Your task to perform on an android device: add a contact in the contacts app Image 0: 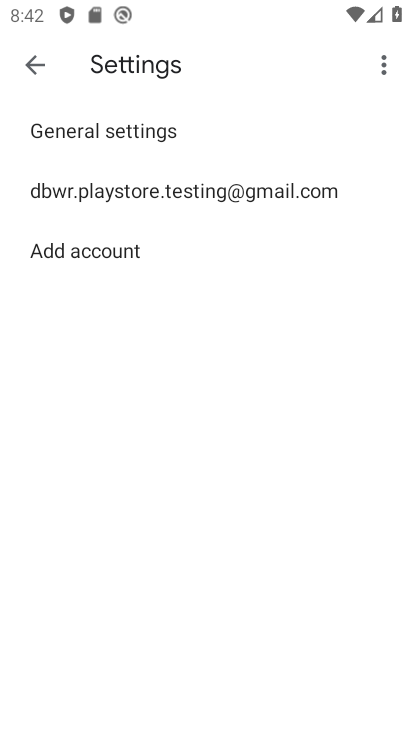
Step 0: press home button
Your task to perform on an android device: add a contact in the contacts app Image 1: 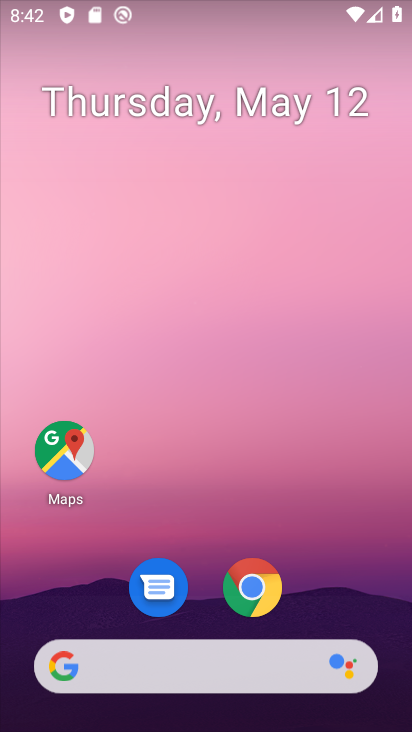
Step 1: drag from (356, 556) to (411, 178)
Your task to perform on an android device: add a contact in the contacts app Image 2: 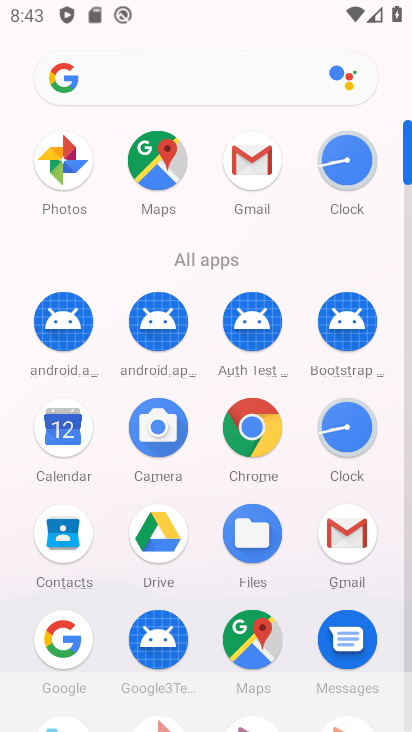
Step 2: drag from (227, 591) to (236, 163)
Your task to perform on an android device: add a contact in the contacts app Image 3: 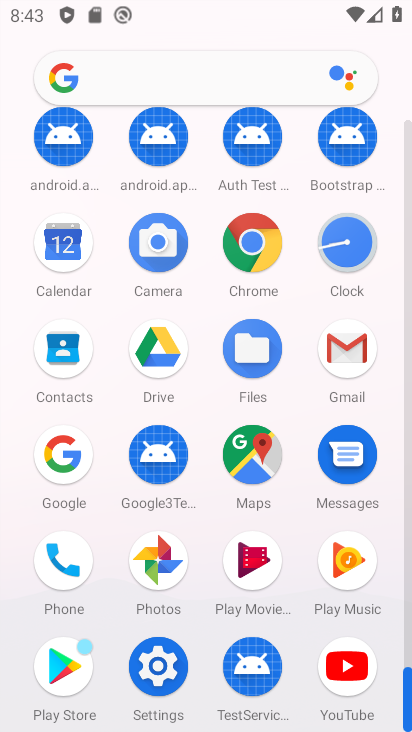
Step 3: drag from (217, 598) to (269, 445)
Your task to perform on an android device: add a contact in the contacts app Image 4: 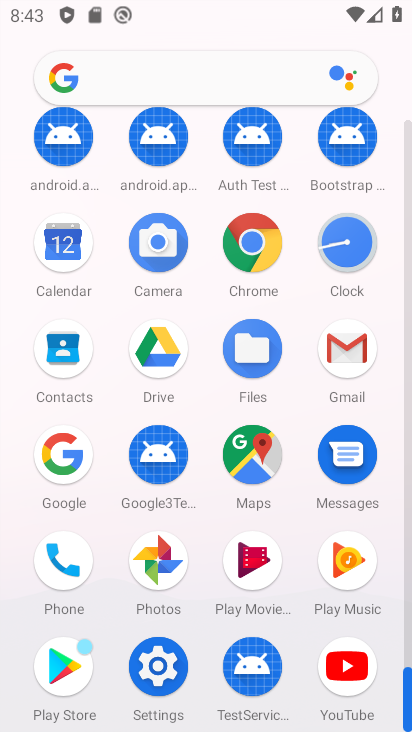
Step 4: click (71, 373)
Your task to perform on an android device: add a contact in the contacts app Image 5: 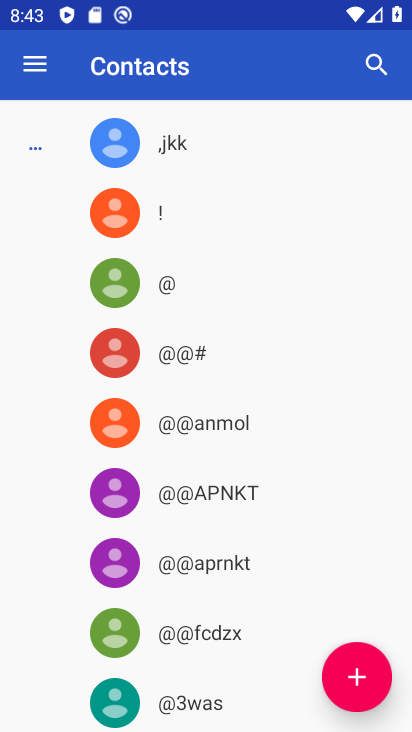
Step 5: click (355, 663)
Your task to perform on an android device: add a contact in the contacts app Image 6: 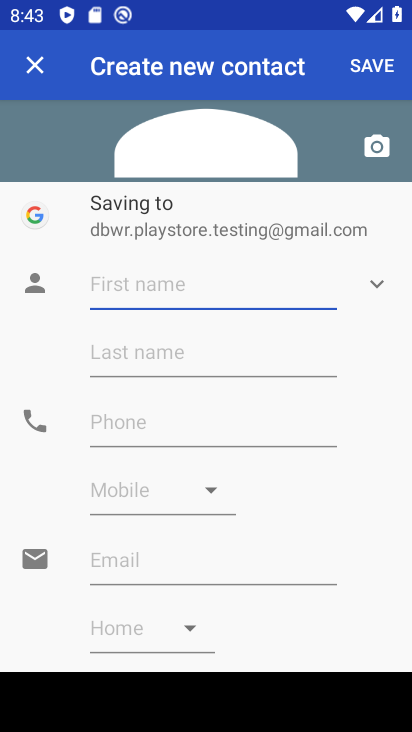
Step 6: click (240, 289)
Your task to perform on an android device: add a contact in the contacts app Image 7: 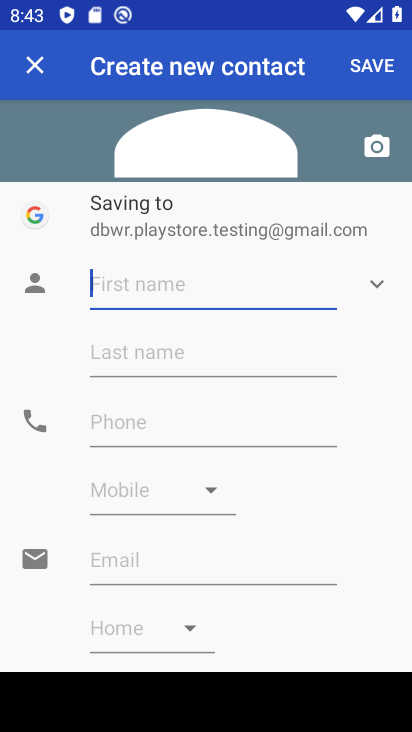
Step 7: type "we"
Your task to perform on an android device: add a contact in the contacts app Image 8: 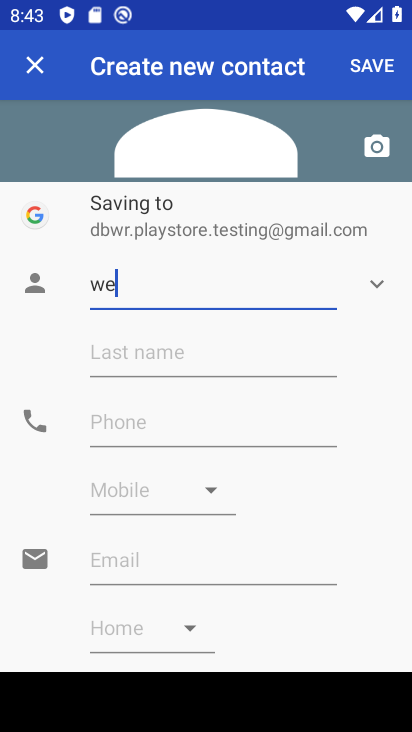
Step 8: type ""
Your task to perform on an android device: add a contact in the contacts app Image 9: 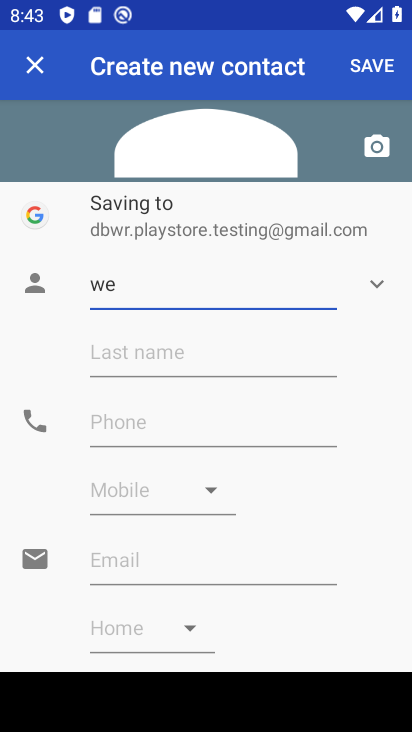
Step 9: click (357, 67)
Your task to perform on an android device: add a contact in the contacts app Image 10: 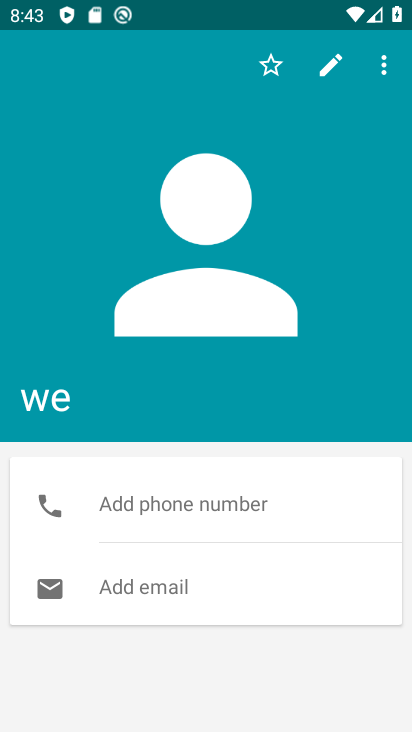
Step 10: task complete